Your task to perform on an android device: add a contact Image 0: 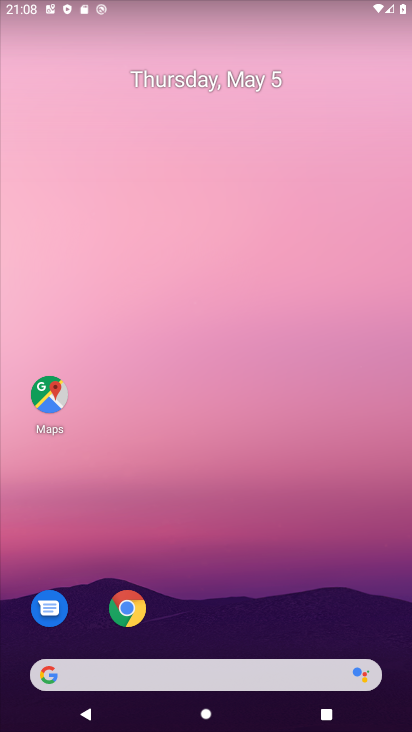
Step 0: drag from (240, 584) to (285, 76)
Your task to perform on an android device: add a contact Image 1: 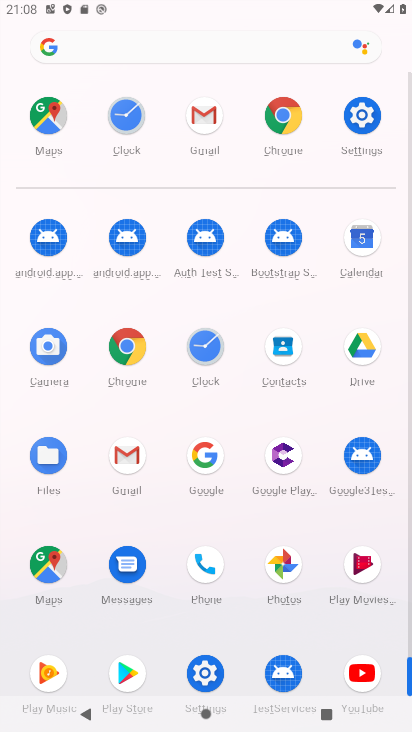
Step 1: click (289, 354)
Your task to perform on an android device: add a contact Image 2: 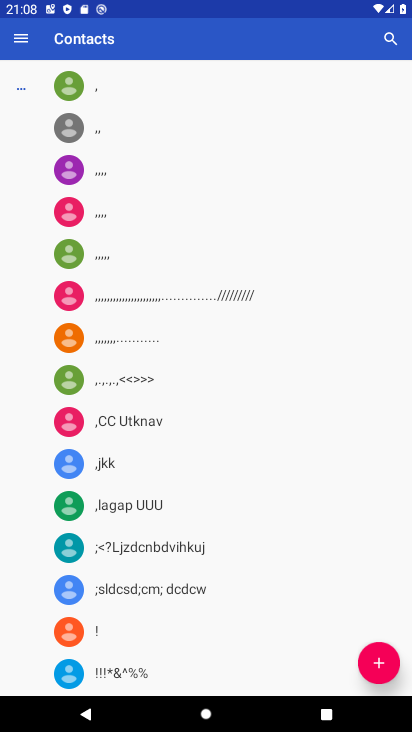
Step 2: click (391, 661)
Your task to perform on an android device: add a contact Image 3: 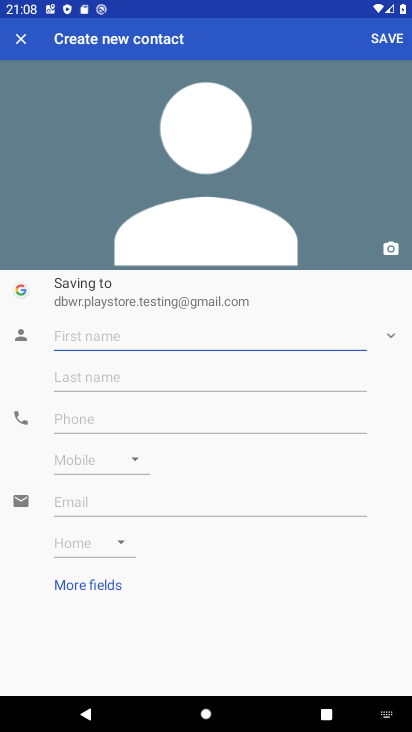
Step 3: type ""
Your task to perform on an android device: add a contact Image 4: 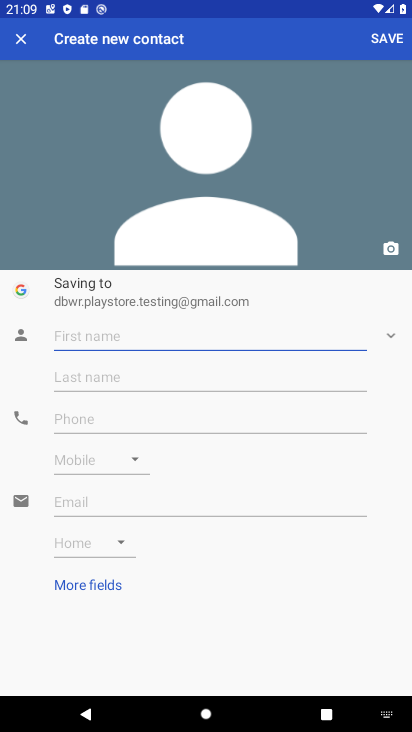
Step 4: type "ghjhhjjjjjc"
Your task to perform on an android device: add a contact Image 5: 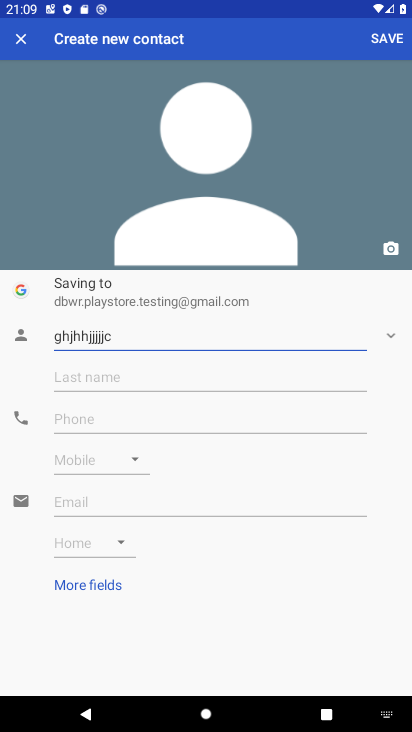
Step 5: click (151, 423)
Your task to perform on an android device: add a contact Image 6: 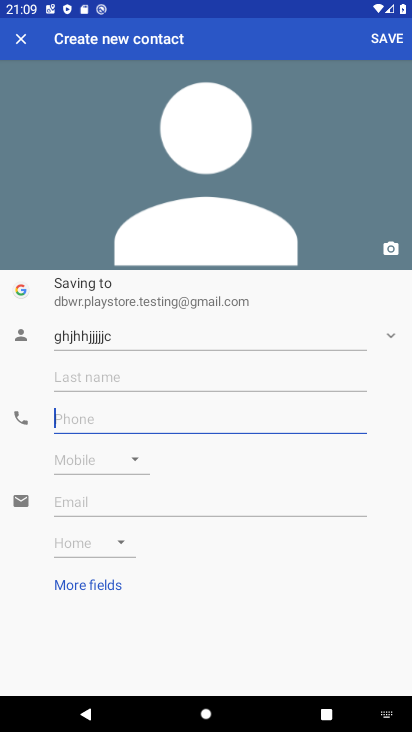
Step 6: type "9897897658"
Your task to perform on an android device: add a contact Image 7: 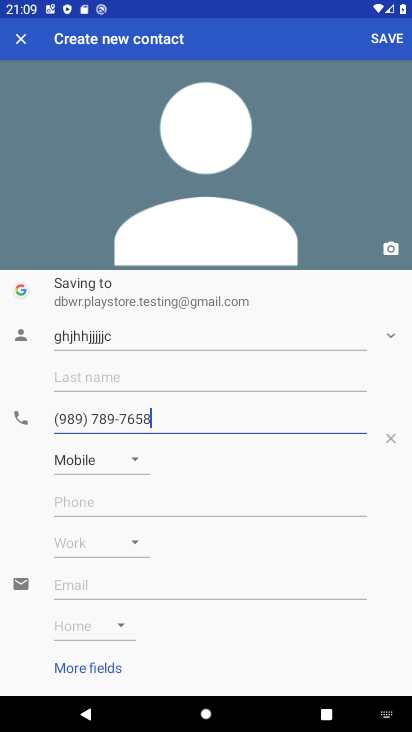
Step 7: click (391, 37)
Your task to perform on an android device: add a contact Image 8: 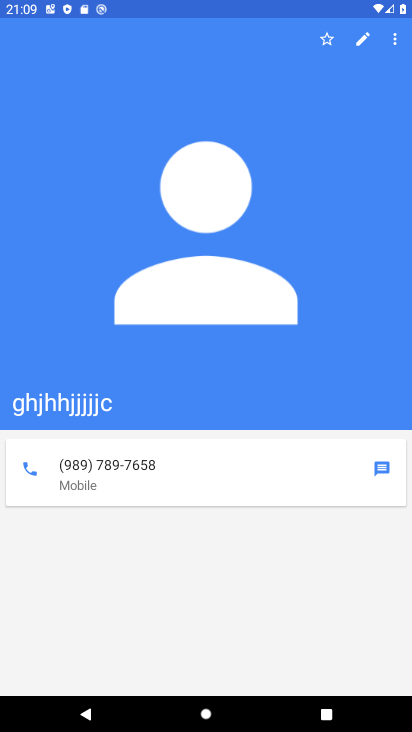
Step 8: task complete